Your task to perform on an android device: change text size in settings app Image 0: 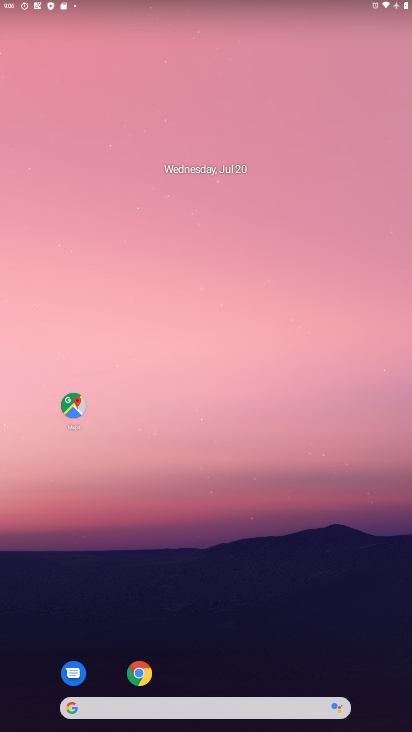
Step 0: drag from (204, 689) to (221, 90)
Your task to perform on an android device: change text size in settings app Image 1: 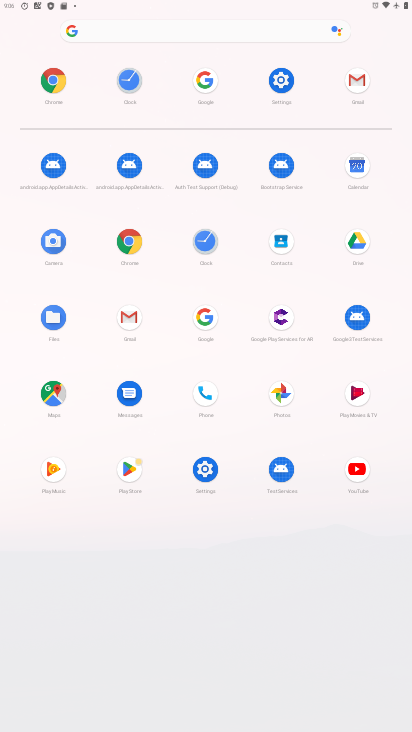
Step 1: click (286, 79)
Your task to perform on an android device: change text size in settings app Image 2: 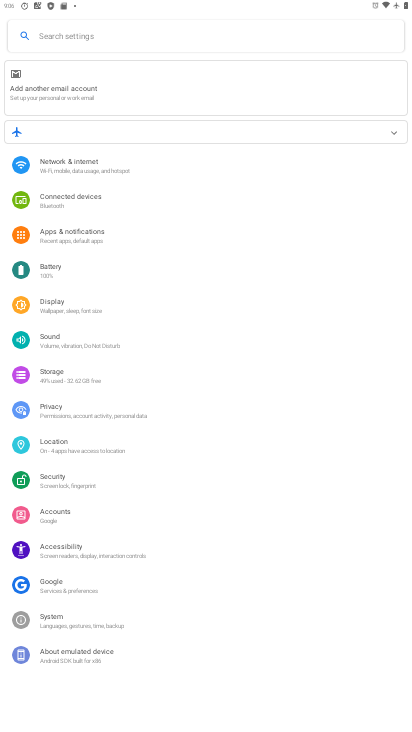
Step 2: click (96, 304)
Your task to perform on an android device: change text size in settings app Image 3: 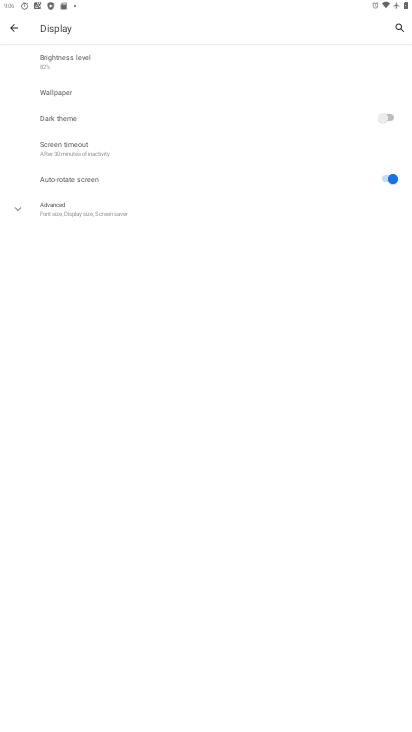
Step 3: click (57, 210)
Your task to perform on an android device: change text size in settings app Image 4: 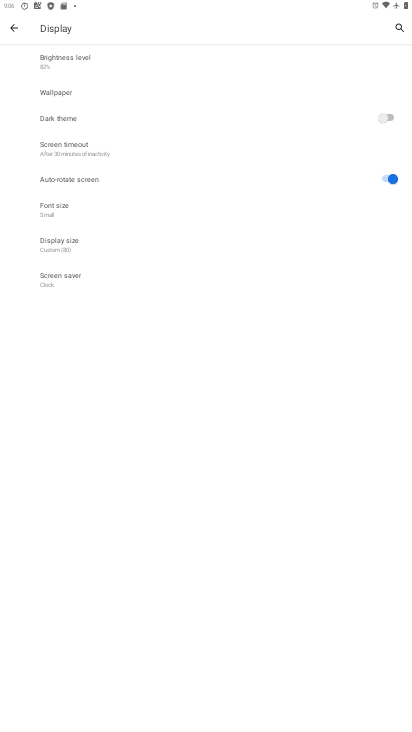
Step 4: click (48, 209)
Your task to perform on an android device: change text size in settings app Image 5: 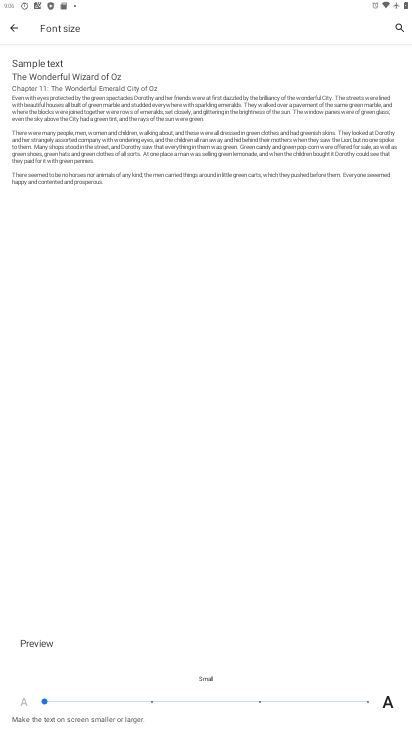
Step 5: task complete